Your task to perform on an android device: Open the Play Movies app and select the watchlist tab. Image 0: 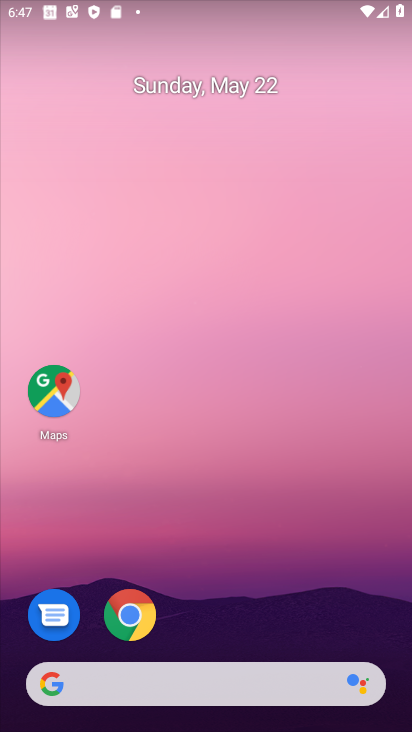
Step 0: drag from (246, 576) to (155, 16)
Your task to perform on an android device: Open the Play Movies app and select the watchlist tab. Image 1: 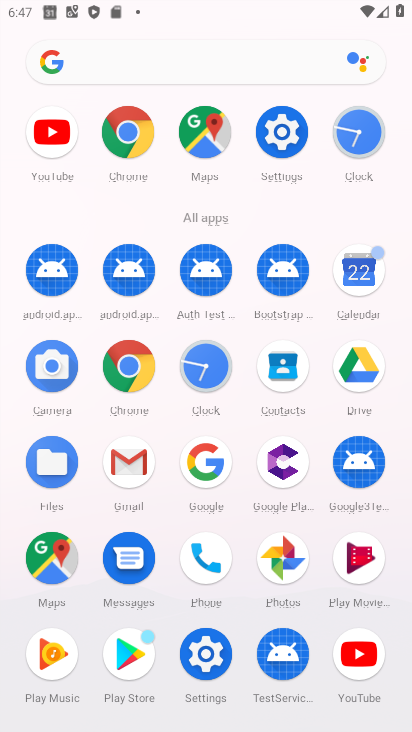
Step 1: click (353, 558)
Your task to perform on an android device: Open the Play Movies app and select the watchlist tab. Image 2: 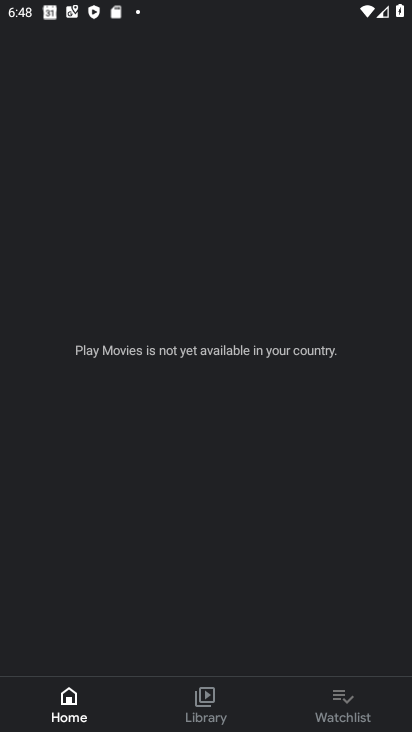
Step 2: click (336, 692)
Your task to perform on an android device: Open the Play Movies app and select the watchlist tab. Image 3: 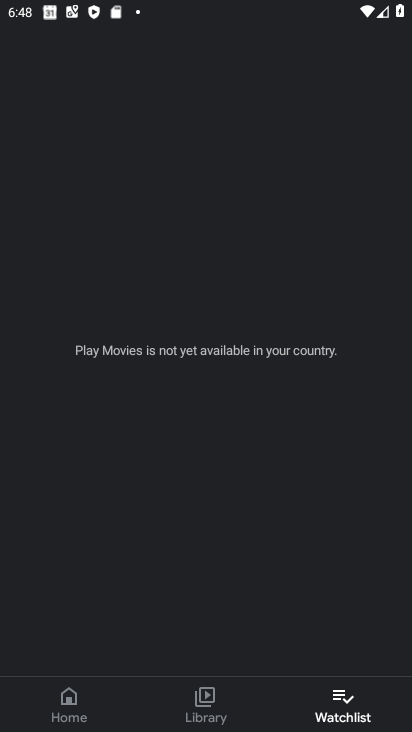
Step 3: task complete